Your task to perform on an android device: Go to calendar. Show me events next week Image 0: 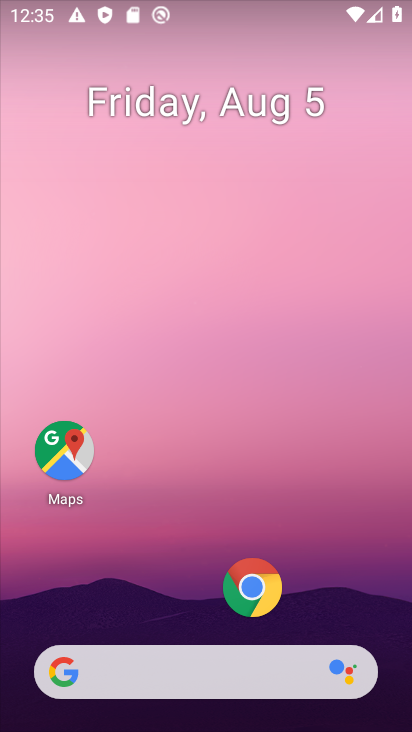
Step 0: drag from (179, 721) to (257, 25)
Your task to perform on an android device: Go to calendar. Show me events next week Image 1: 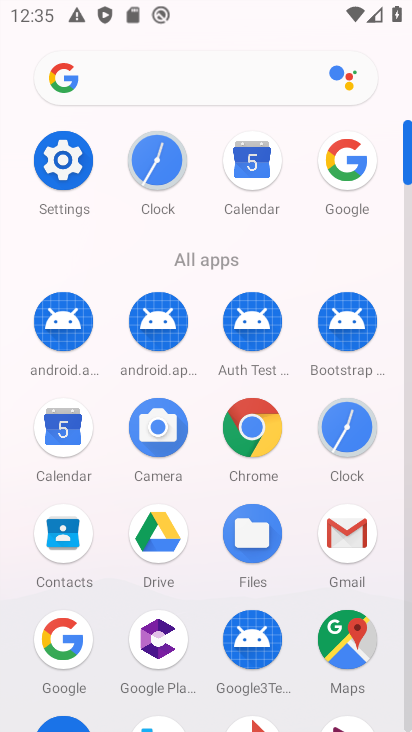
Step 1: click (51, 444)
Your task to perform on an android device: Go to calendar. Show me events next week Image 2: 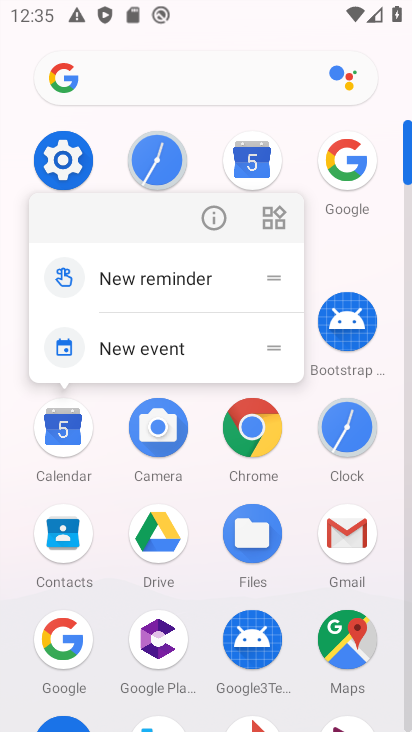
Step 2: click (51, 444)
Your task to perform on an android device: Go to calendar. Show me events next week Image 3: 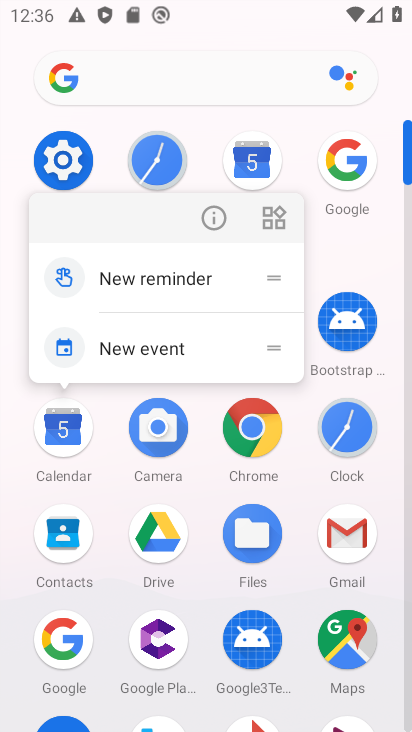
Step 3: click (51, 444)
Your task to perform on an android device: Go to calendar. Show me events next week Image 4: 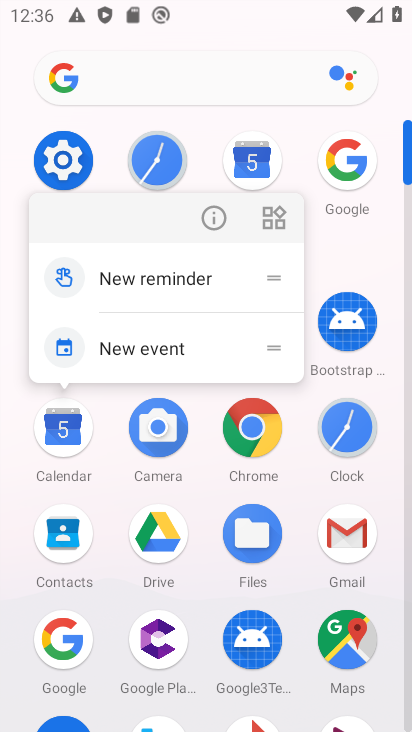
Step 4: click (86, 423)
Your task to perform on an android device: Go to calendar. Show me events next week Image 5: 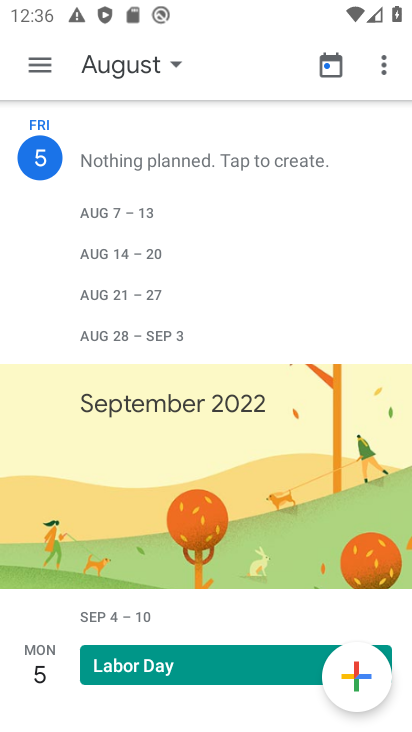
Step 5: click (47, 421)
Your task to perform on an android device: Go to calendar. Show me events next week Image 6: 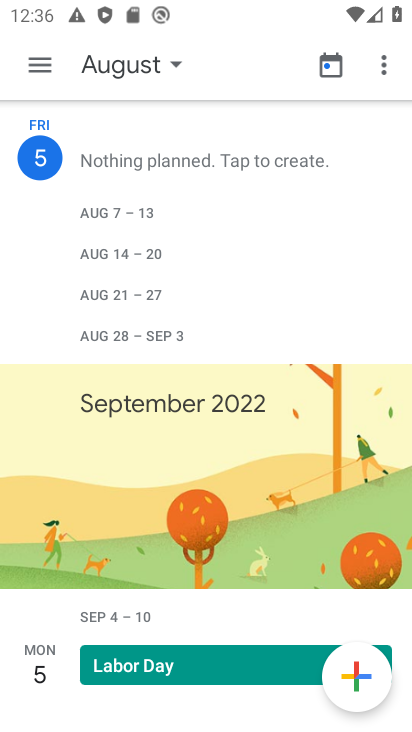
Step 6: click (135, 48)
Your task to perform on an android device: Go to calendar. Show me events next week Image 7: 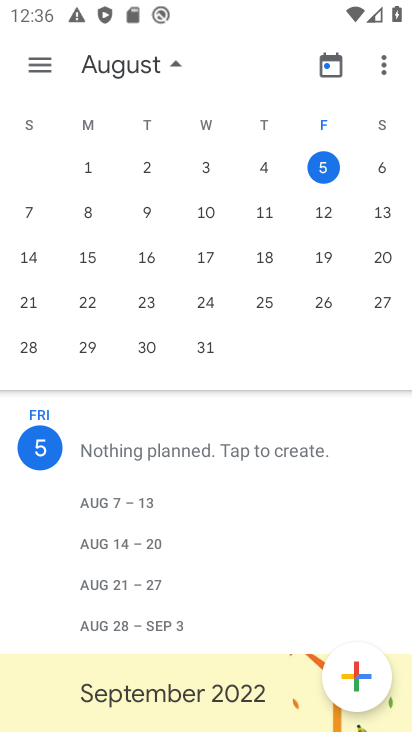
Step 7: click (39, 210)
Your task to perform on an android device: Go to calendar. Show me events next week Image 8: 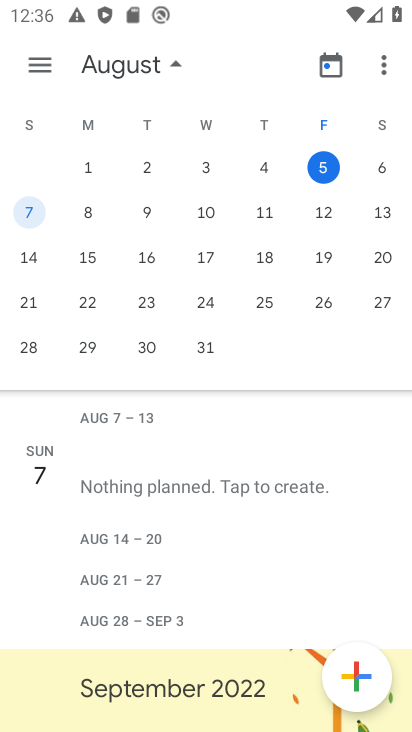
Step 8: task complete